Your task to perform on an android device: Open Android settings Image 0: 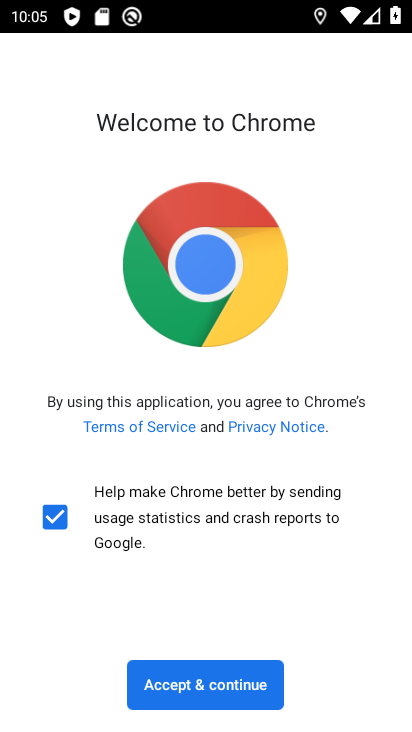
Step 0: press home button
Your task to perform on an android device: Open Android settings Image 1: 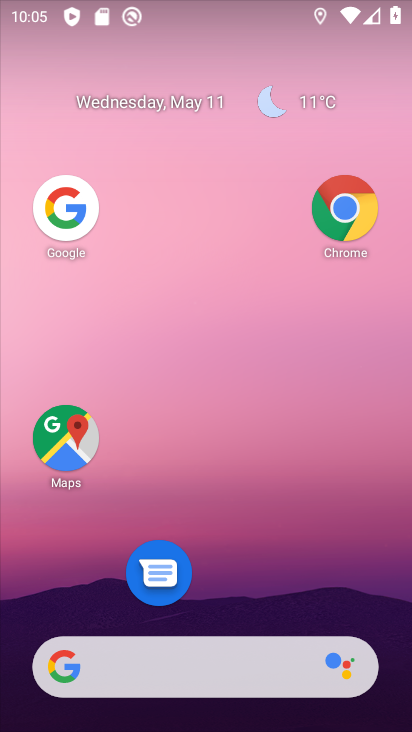
Step 1: drag from (243, 628) to (317, 4)
Your task to perform on an android device: Open Android settings Image 2: 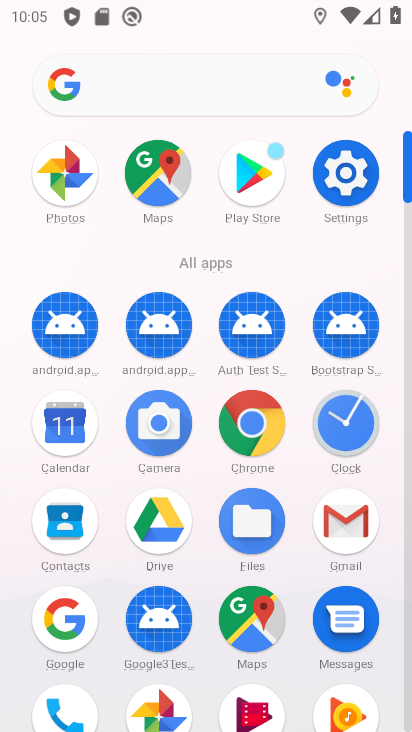
Step 2: click (343, 191)
Your task to perform on an android device: Open Android settings Image 3: 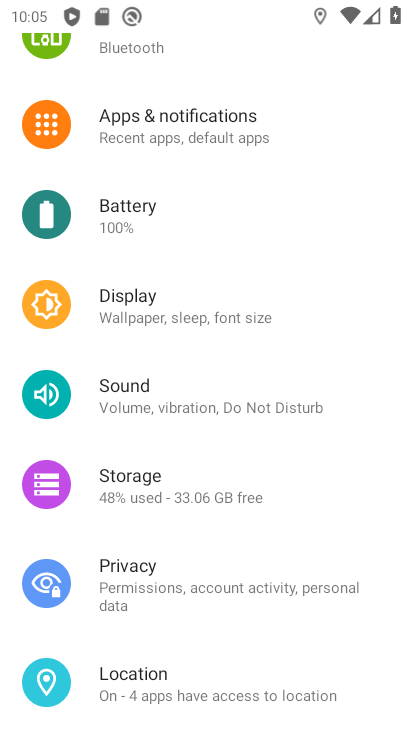
Step 3: drag from (343, 191) to (272, 542)
Your task to perform on an android device: Open Android settings Image 4: 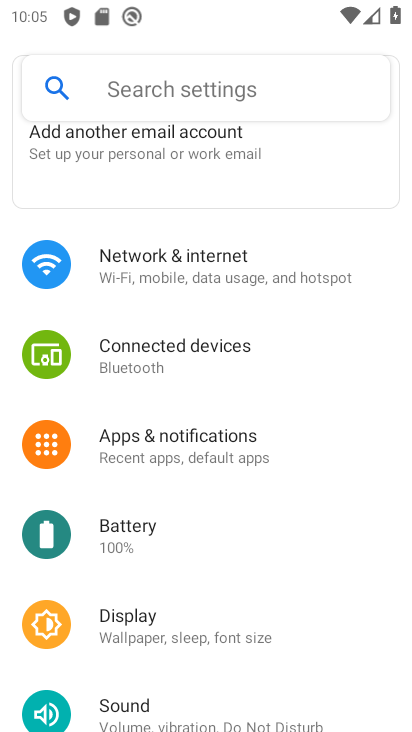
Step 4: drag from (256, 584) to (233, 58)
Your task to perform on an android device: Open Android settings Image 5: 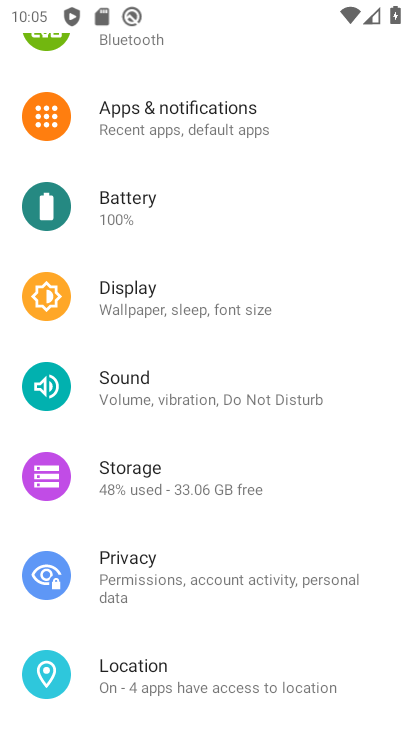
Step 5: drag from (234, 675) to (86, 42)
Your task to perform on an android device: Open Android settings Image 6: 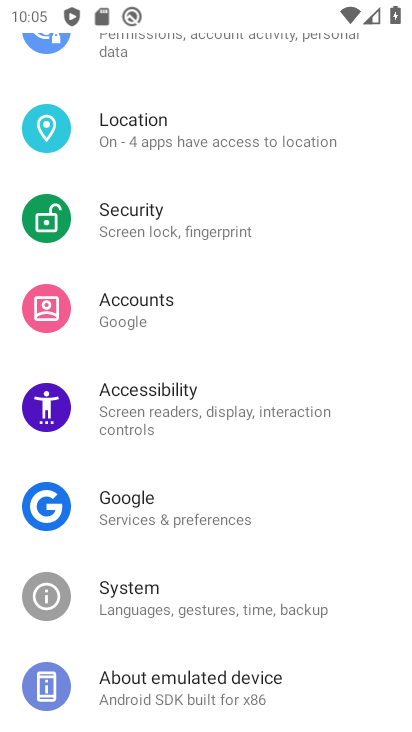
Step 6: click (83, 685)
Your task to perform on an android device: Open Android settings Image 7: 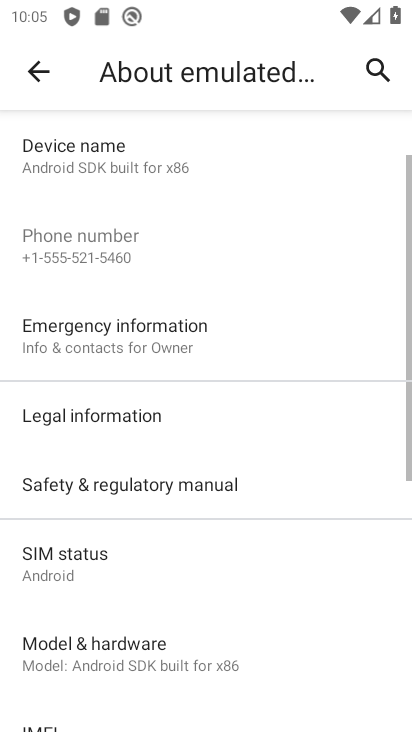
Step 7: drag from (143, 521) to (139, 83)
Your task to perform on an android device: Open Android settings Image 8: 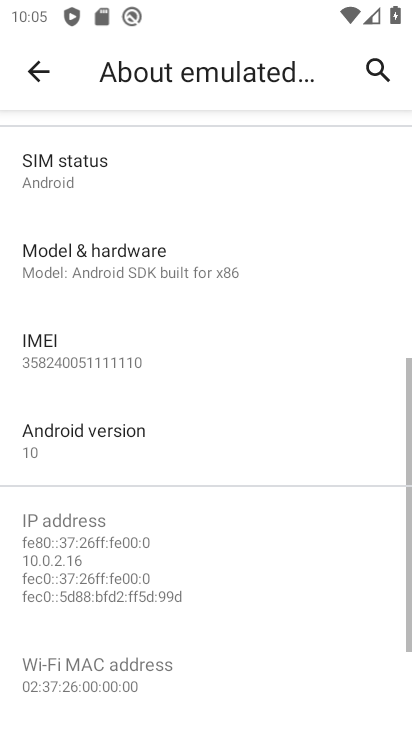
Step 8: click (79, 453)
Your task to perform on an android device: Open Android settings Image 9: 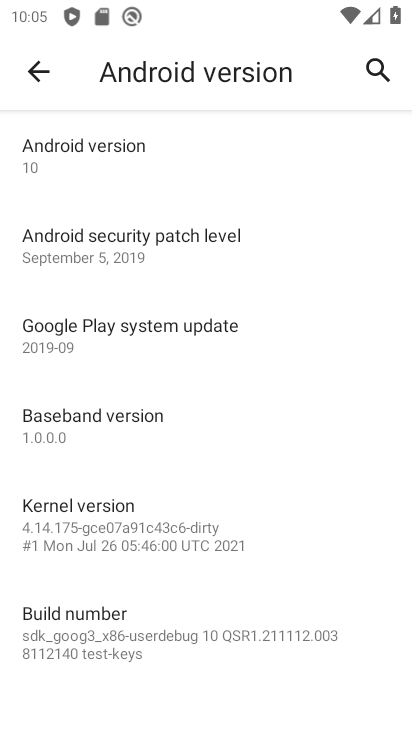
Step 9: click (51, 173)
Your task to perform on an android device: Open Android settings Image 10: 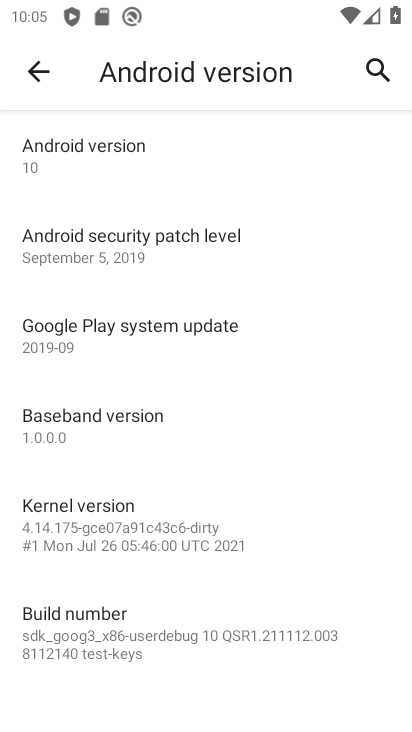
Step 10: task complete